Your task to perform on an android device: Open the map Image 0: 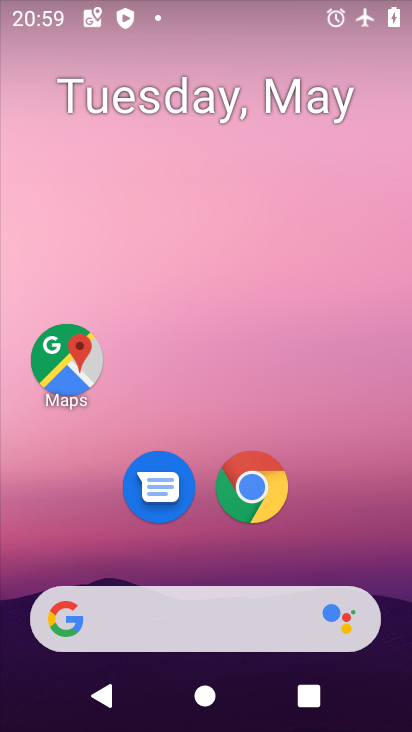
Step 0: click (65, 357)
Your task to perform on an android device: Open the map Image 1: 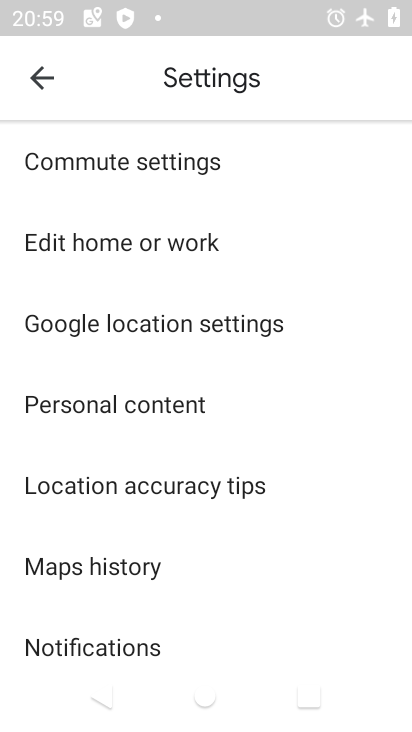
Step 1: click (35, 70)
Your task to perform on an android device: Open the map Image 2: 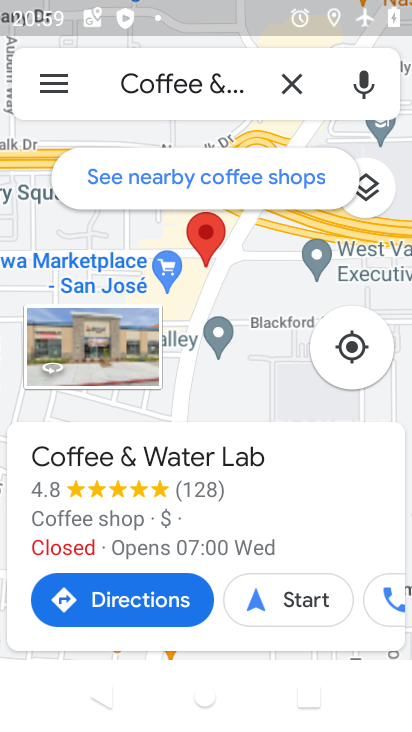
Step 2: click (297, 84)
Your task to perform on an android device: Open the map Image 3: 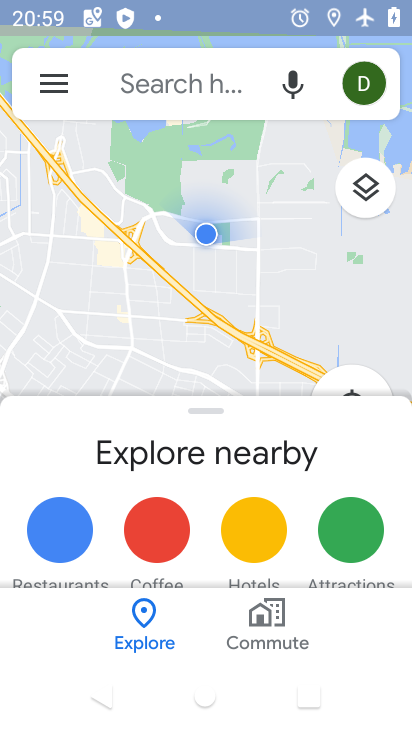
Step 3: task complete